Your task to perform on an android device: Turn on the flashlight Image 0: 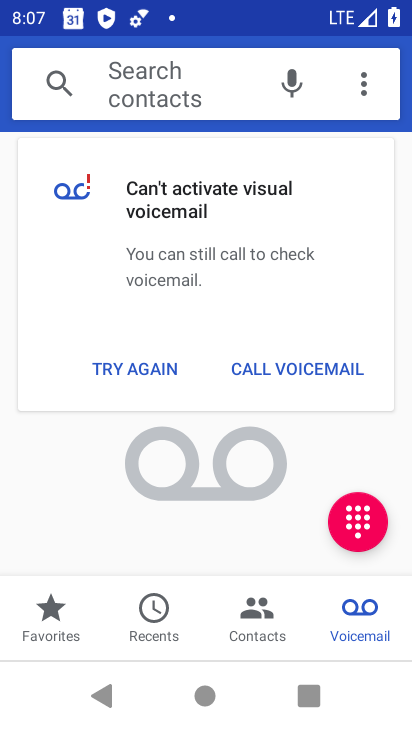
Step 0: drag from (307, 9) to (222, 467)
Your task to perform on an android device: Turn on the flashlight Image 1: 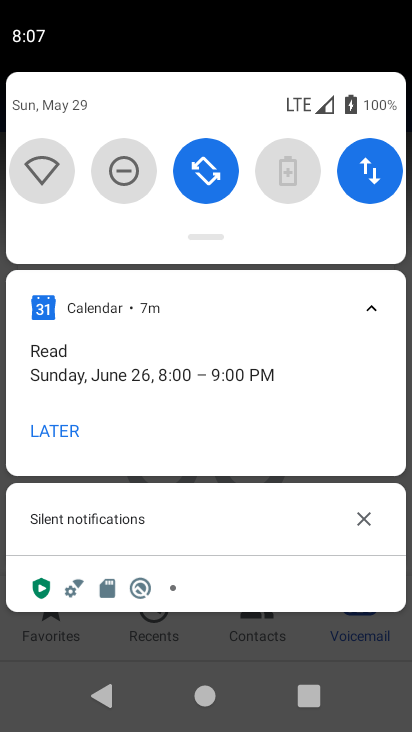
Step 1: task complete